Your task to perform on an android device: Open Wikipedia Image 0: 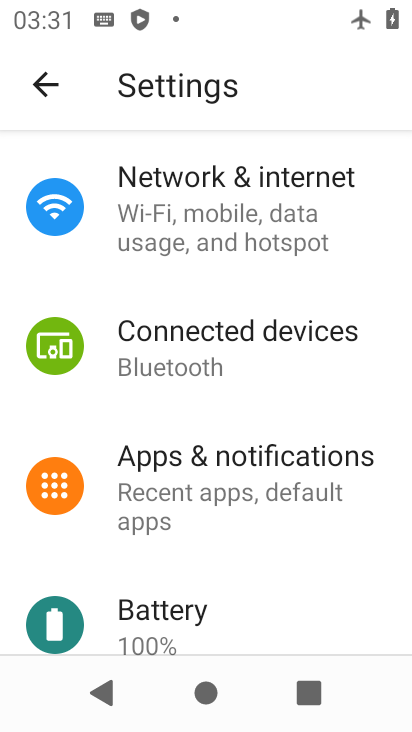
Step 0: press home button
Your task to perform on an android device: Open Wikipedia Image 1: 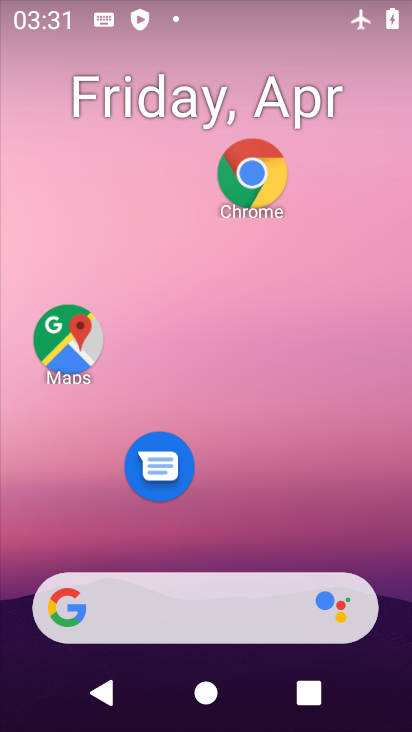
Step 1: drag from (239, 523) to (181, 173)
Your task to perform on an android device: Open Wikipedia Image 2: 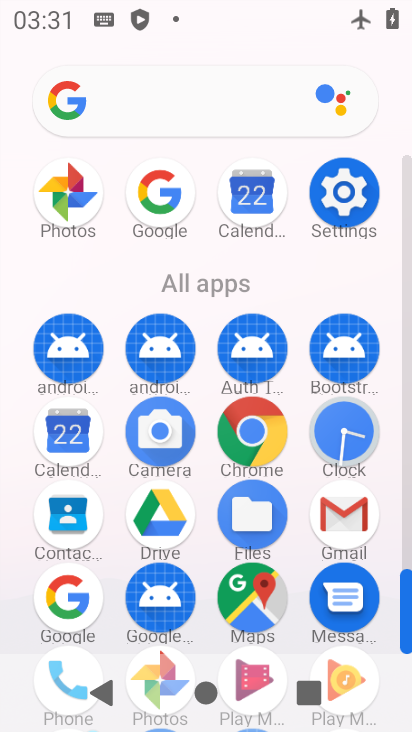
Step 2: click (265, 428)
Your task to perform on an android device: Open Wikipedia Image 3: 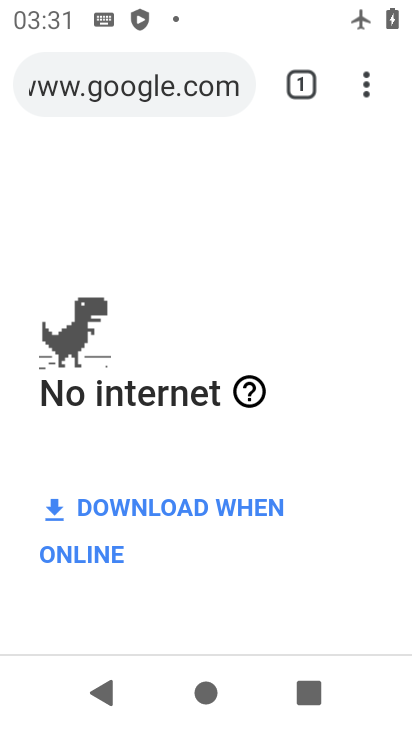
Step 3: click (305, 85)
Your task to perform on an android device: Open Wikipedia Image 4: 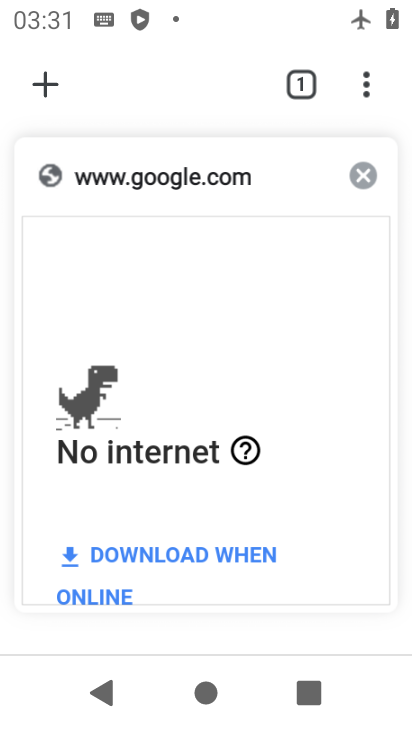
Step 4: click (61, 87)
Your task to perform on an android device: Open Wikipedia Image 5: 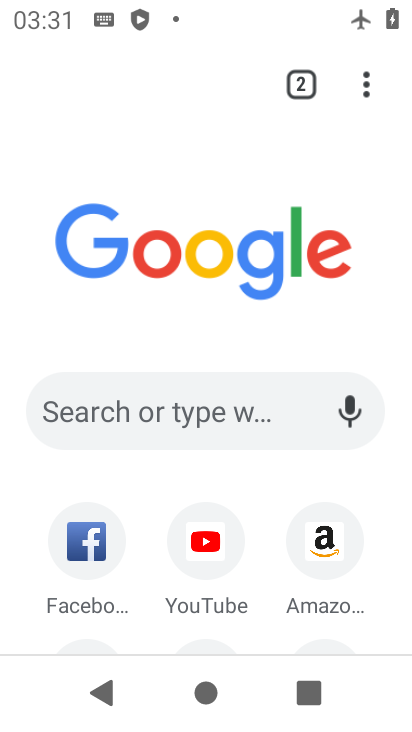
Step 5: drag from (167, 496) to (145, 136)
Your task to perform on an android device: Open Wikipedia Image 6: 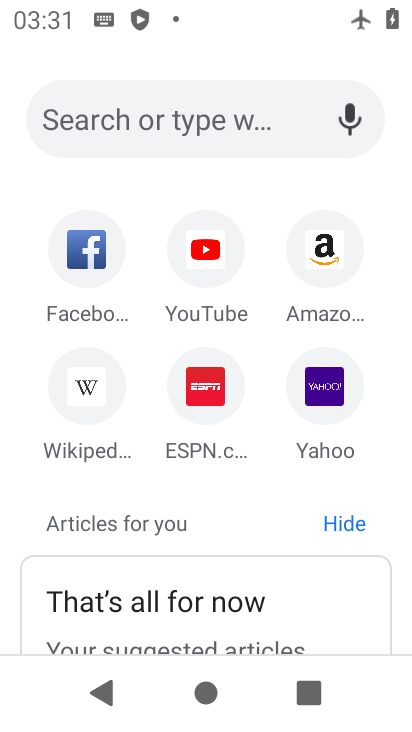
Step 6: click (91, 383)
Your task to perform on an android device: Open Wikipedia Image 7: 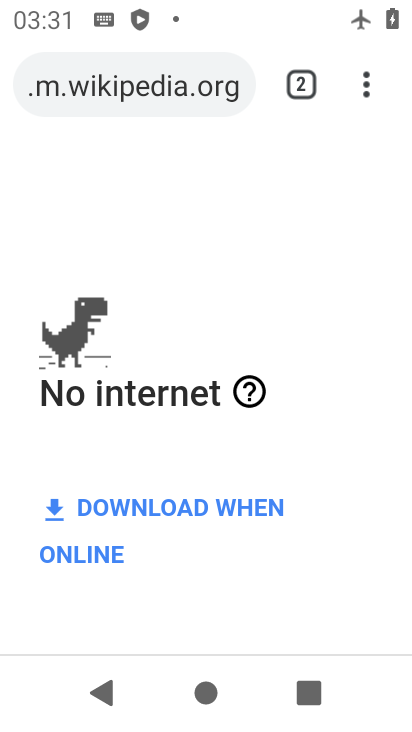
Step 7: task complete